Your task to perform on an android device: Is it going to rain today? Image 0: 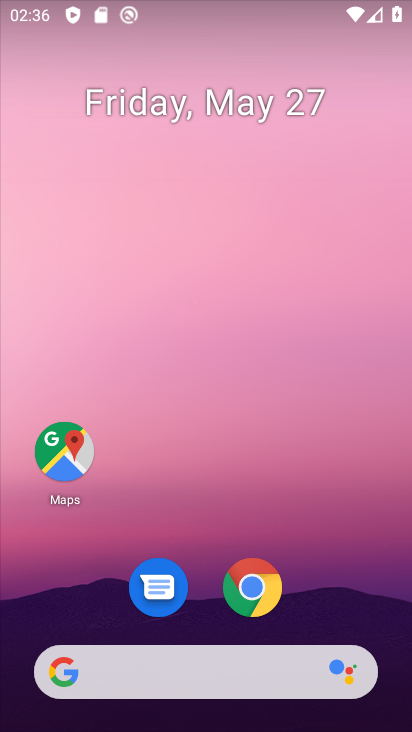
Step 0: press home button
Your task to perform on an android device: Is it going to rain today? Image 1: 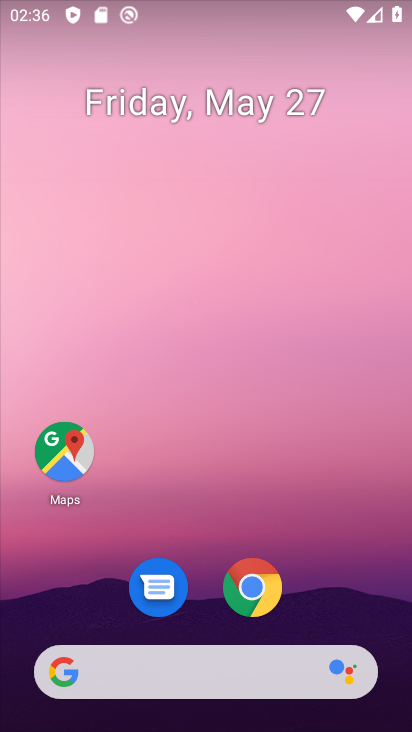
Step 1: click (61, 671)
Your task to perform on an android device: Is it going to rain today? Image 2: 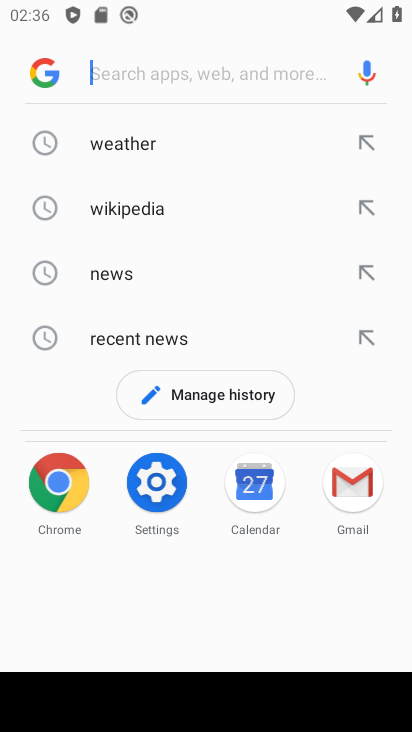
Step 2: type "Is it going to rain today?"
Your task to perform on an android device: Is it going to rain today? Image 3: 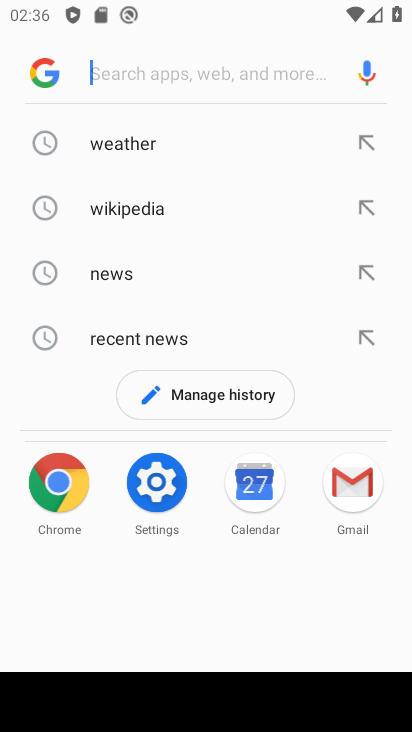
Step 3: click (161, 79)
Your task to perform on an android device: Is it going to rain today? Image 4: 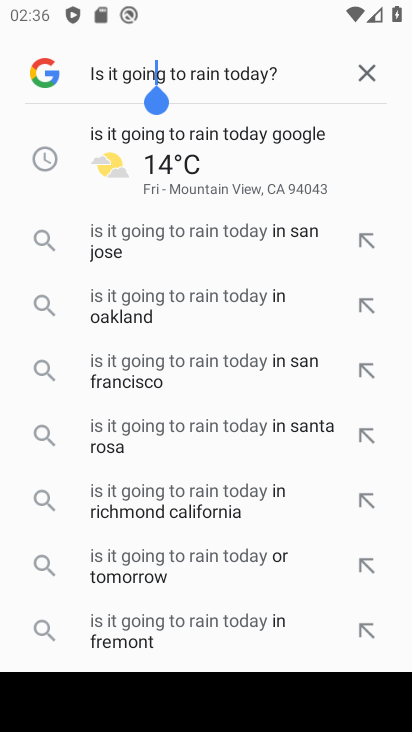
Step 4: click (205, 134)
Your task to perform on an android device: Is it going to rain today? Image 5: 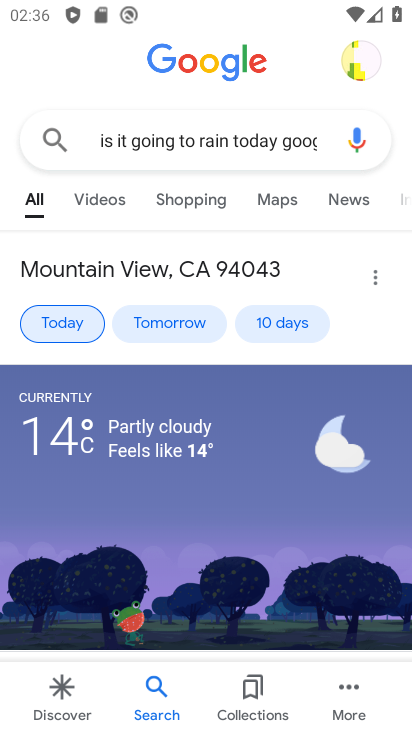
Step 5: task complete